Your task to perform on an android device: Search for vegetarian restaurants on Maps Image 0: 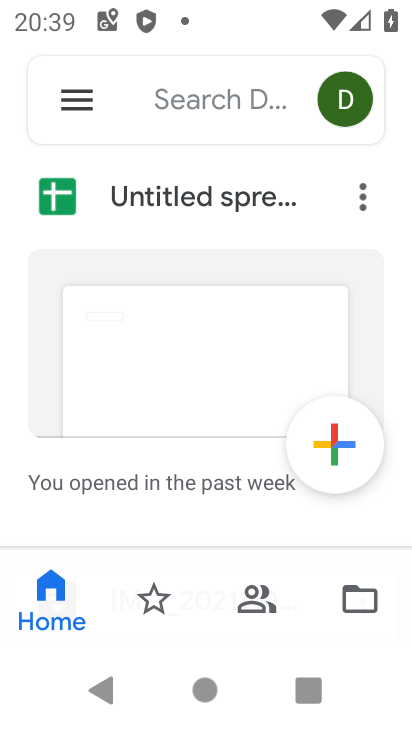
Step 0: press home button
Your task to perform on an android device: Search for vegetarian restaurants on Maps Image 1: 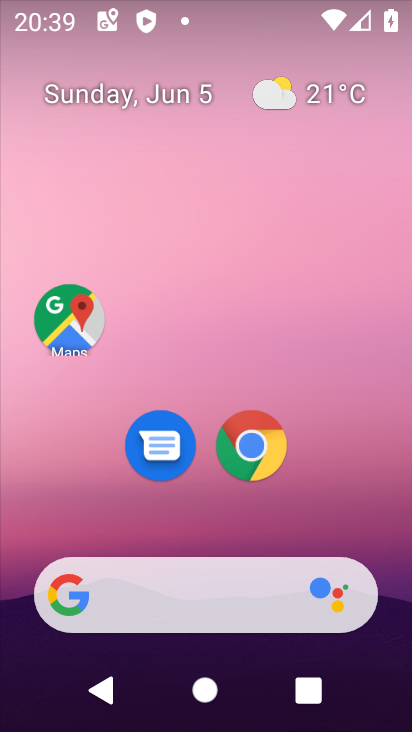
Step 1: click (77, 331)
Your task to perform on an android device: Search for vegetarian restaurants on Maps Image 2: 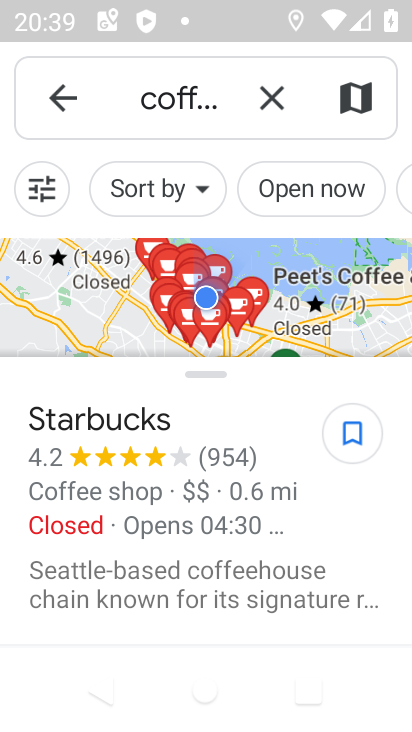
Step 2: click (274, 95)
Your task to perform on an android device: Search for vegetarian restaurants on Maps Image 3: 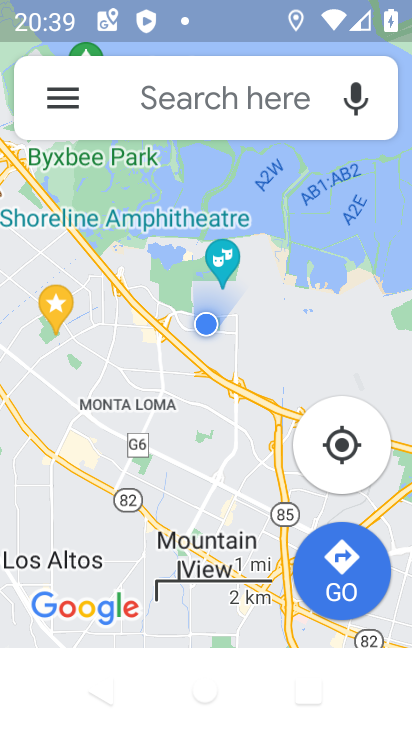
Step 3: click (180, 98)
Your task to perform on an android device: Search for vegetarian restaurants on Maps Image 4: 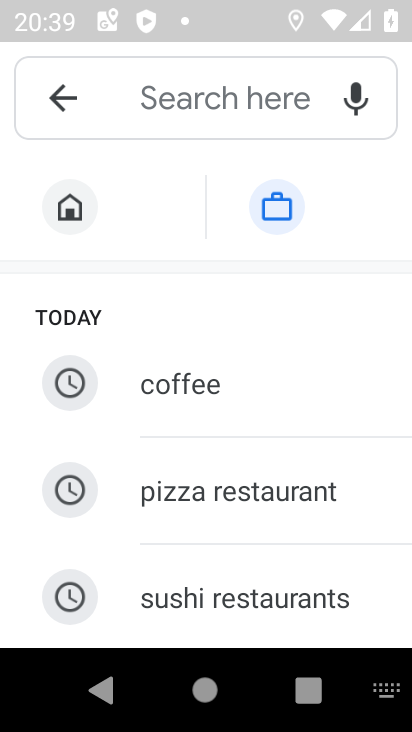
Step 4: type "vegetarian restaurants"
Your task to perform on an android device: Search for vegetarian restaurants on Maps Image 5: 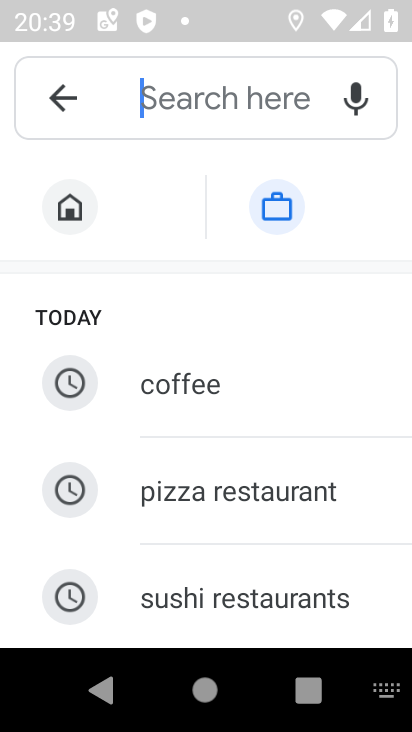
Step 5: click (186, 100)
Your task to perform on an android device: Search for vegetarian restaurants on Maps Image 6: 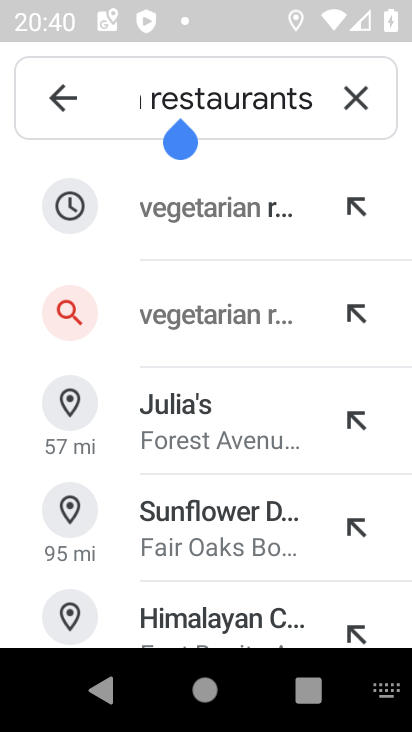
Step 6: click (165, 212)
Your task to perform on an android device: Search for vegetarian restaurants on Maps Image 7: 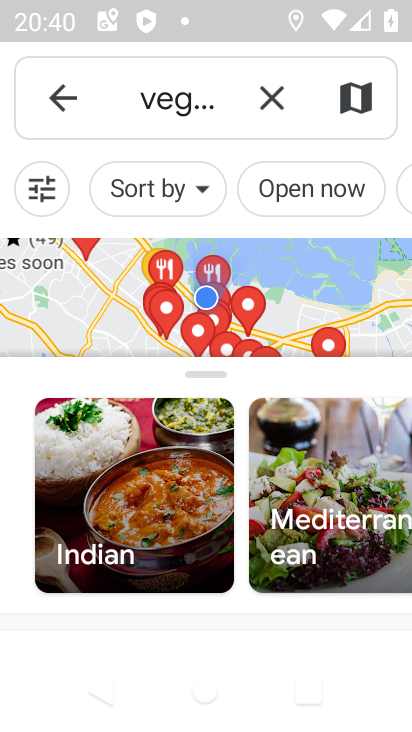
Step 7: task complete